Your task to perform on an android device: Go to Reddit.com Image 0: 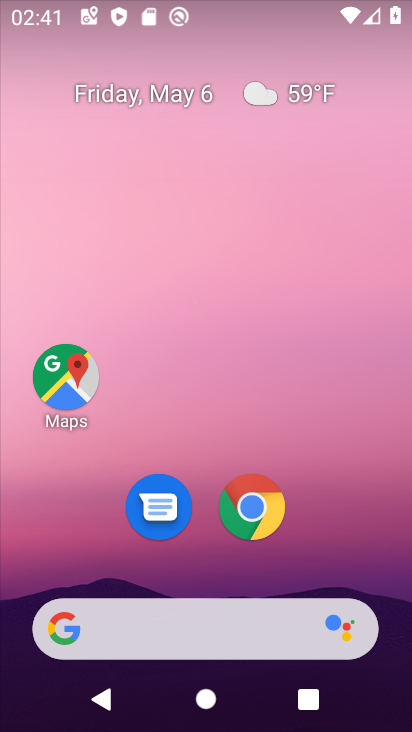
Step 0: click (270, 523)
Your task to perform on an android device: Go to Reddit.com Image 1: 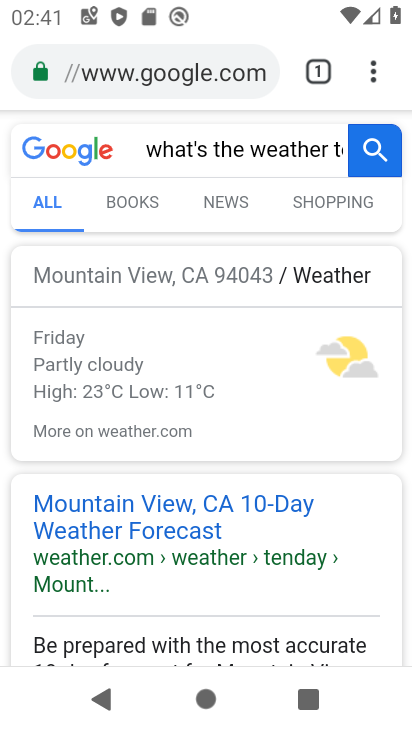
Step 1: click (178, 71)
Your task to perform on an android device: Go to Reddit.com Image 2: 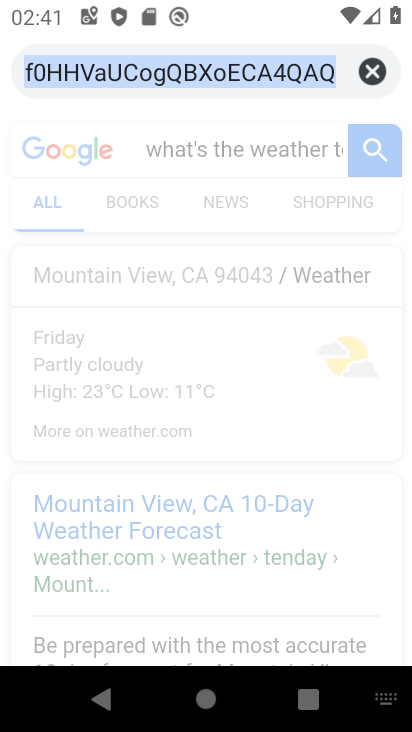
Step 2: type "Reddit.com"
Your task to perform on an android device: Go to Reddit.com Image 3: 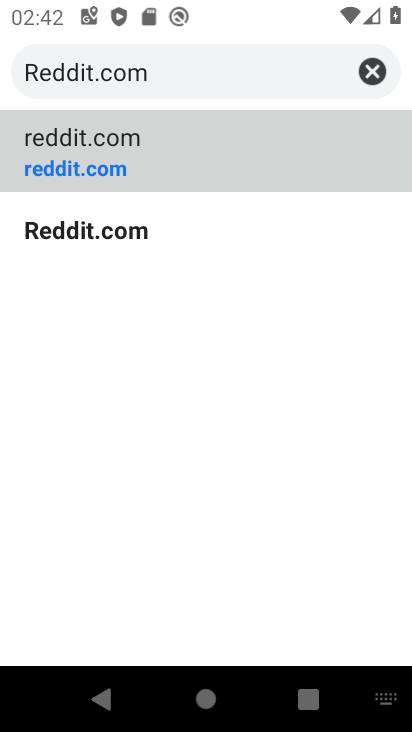
Step 3: click (165, 176)
Your task to perform on an android device: Go to Reddit.com Image 4: 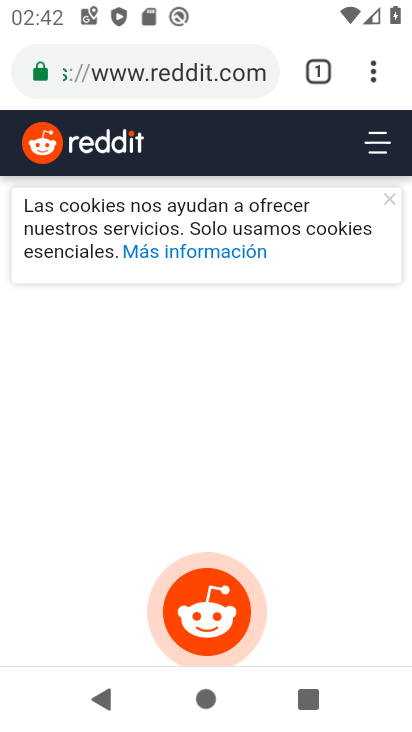
Step 4: task complete